Your task to perform on an android device: Go to Wikipedia Image 0: 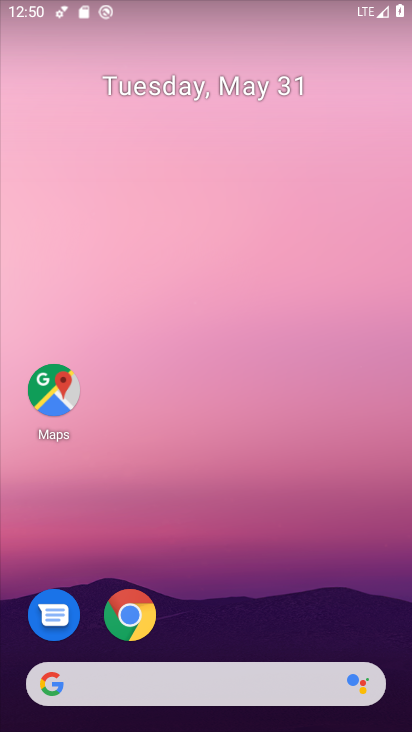
Step 0: click (127, 616)
Your task to perform on an android device: Go to Wikipedia Image 1: 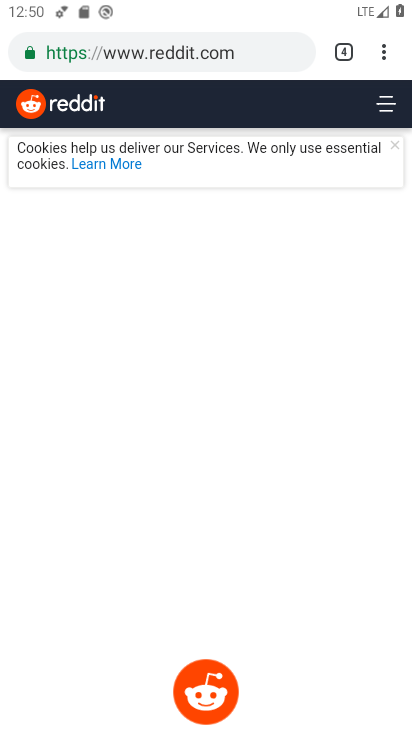
Step 1: click (211, 52)
Your task to perform on an android device: Go to Wikipedia Image 2: 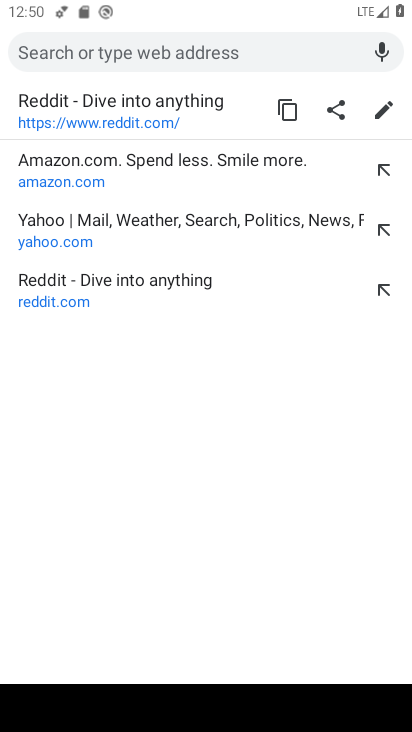
Step 2: type "wikipedia"
Your task to perform on an android device: Go to Wikipedia Image 3: 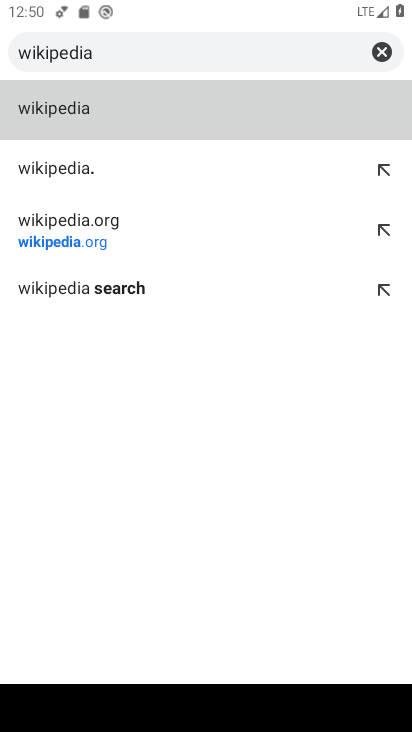
Step 3: click (83, 116)
Your task to perform on an android device: Go to Wikipedia Image 4: 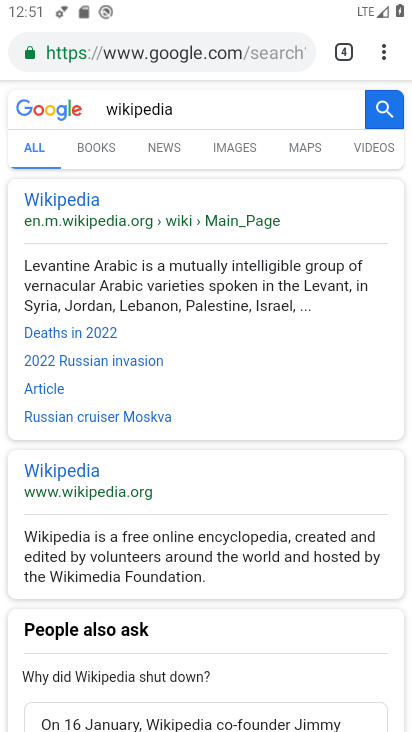
Step 4: task complete